Your task to perform on an android device: set the timer Image 0: 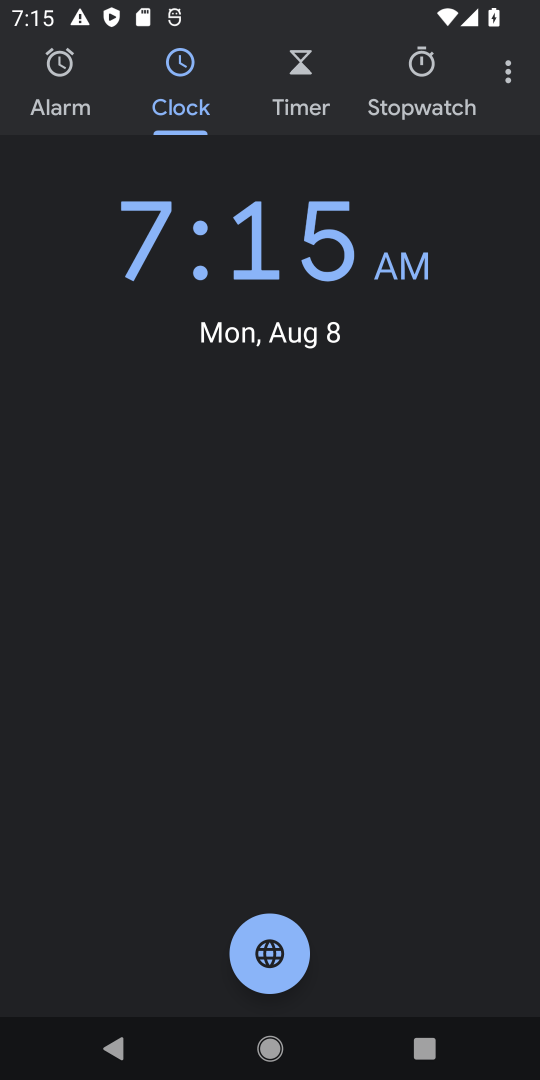
Step 0: click (292, 96)
Your task to perform on an android device: set the timer Image 1: 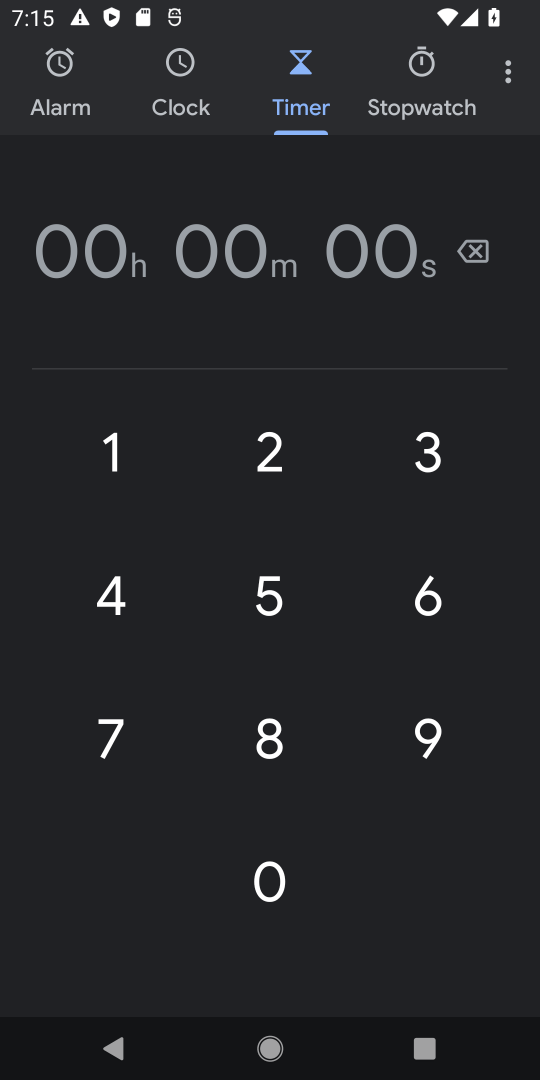
Step 1: click (272, 447)
Your task to perform on an android device: set the timer Image 2: 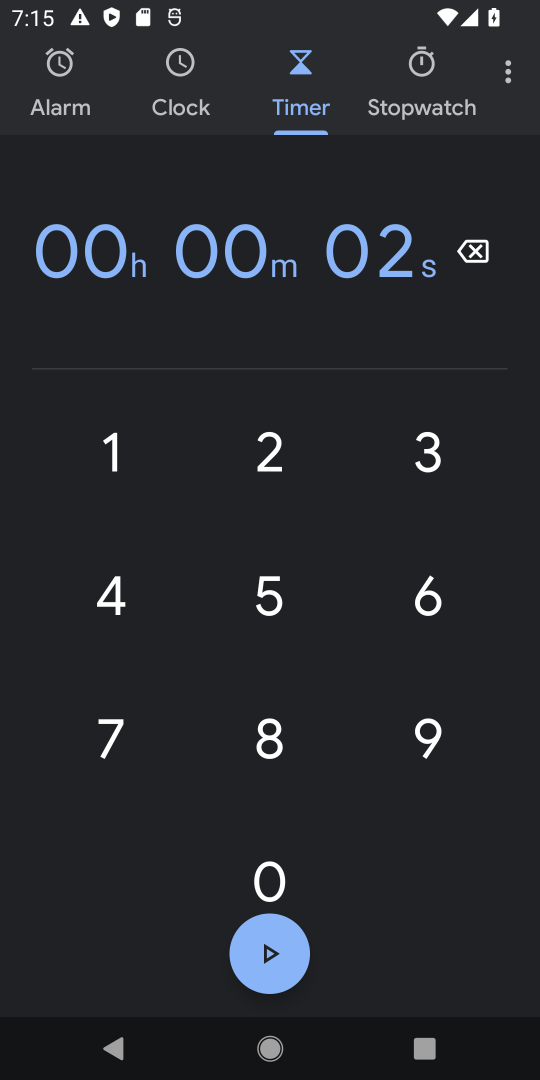
Step 2: click (272, 447)
Your task to perform on an android device: set the timer Image 3: 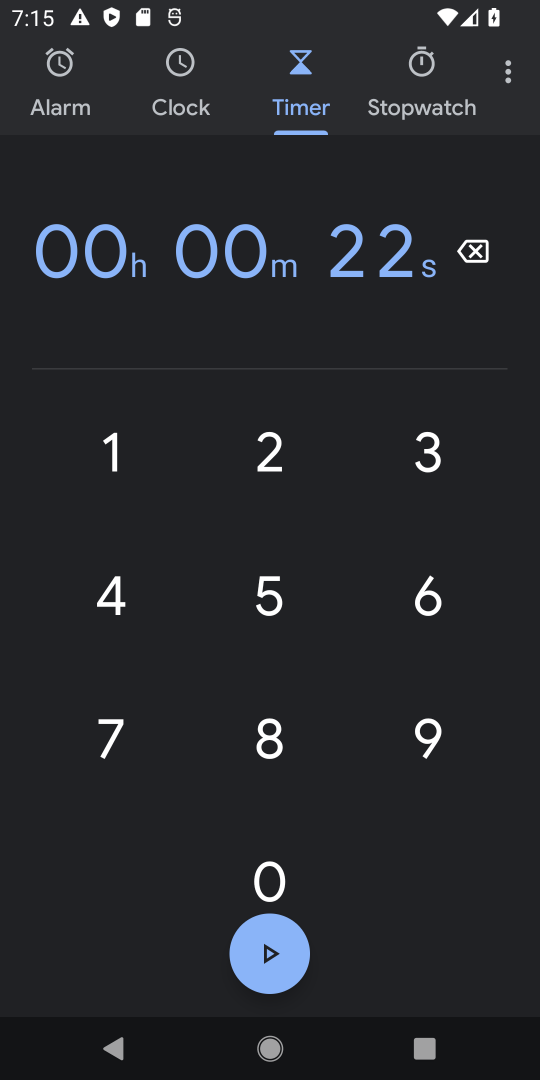
Step 3: task complete